Your task to perform on an android device: set the timer Image 0: 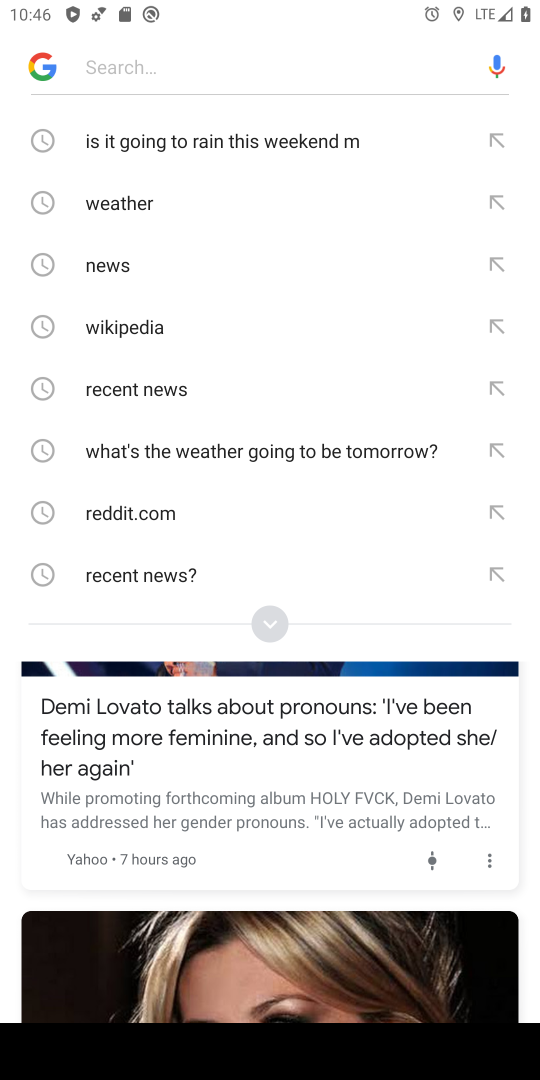
Step 0: click (252, 874)
Your task to perform on an android device: set the timer Image 1: 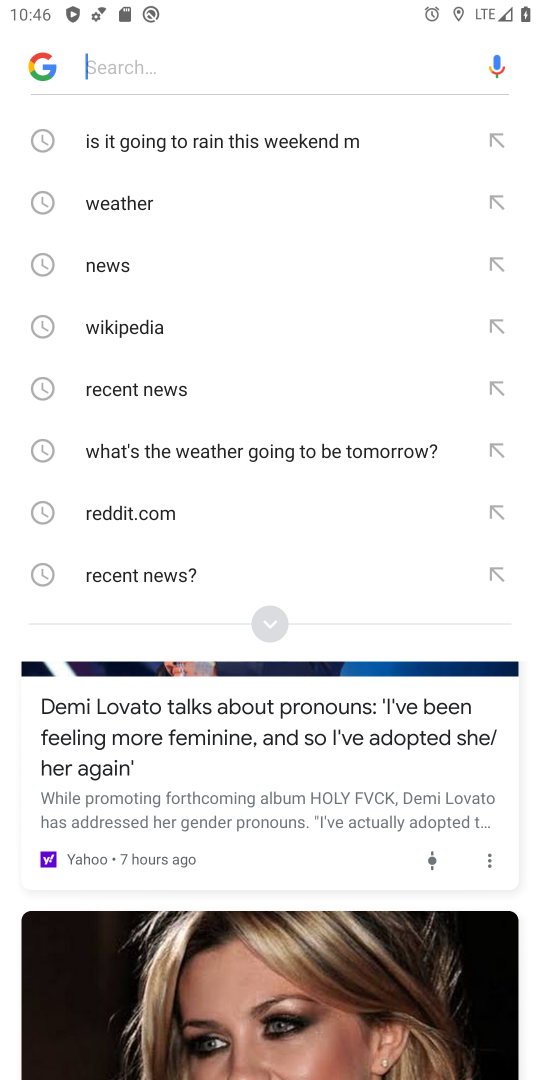
Step 1: press home button
Your task to perform on an android device: set the timer Image 2: 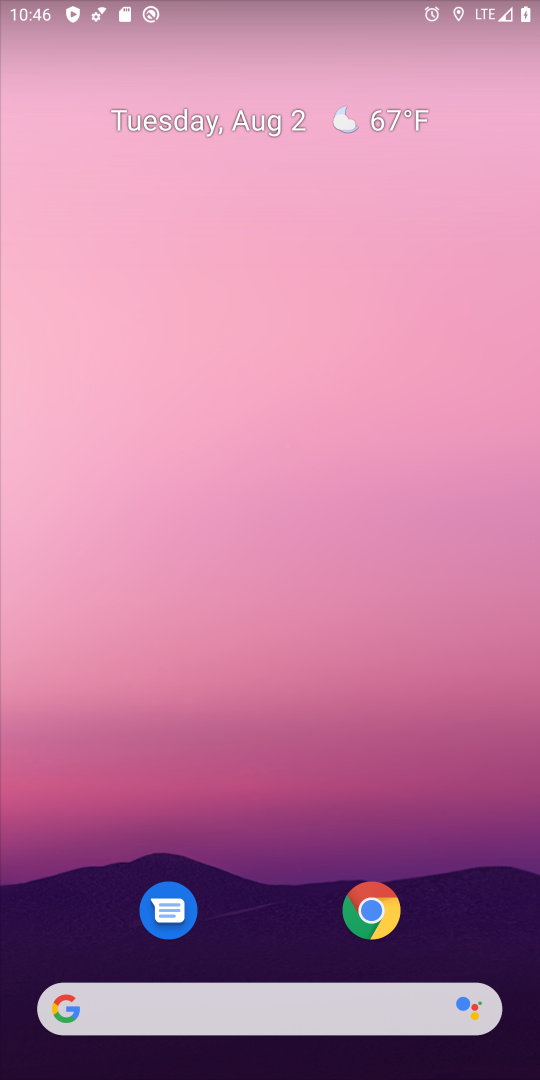
Step 2: drag from (249, 971) to (426, 228)
Your task to perform on an android device: set the timer Image 3: 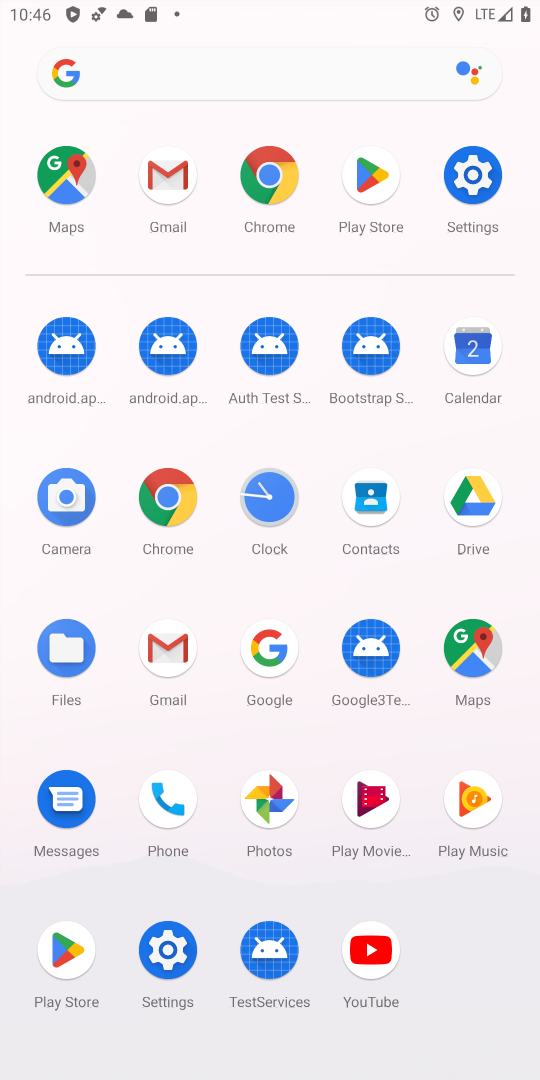
Step 3: click (278, 491)
Your task to perform on an android device: set the timer Image 4: 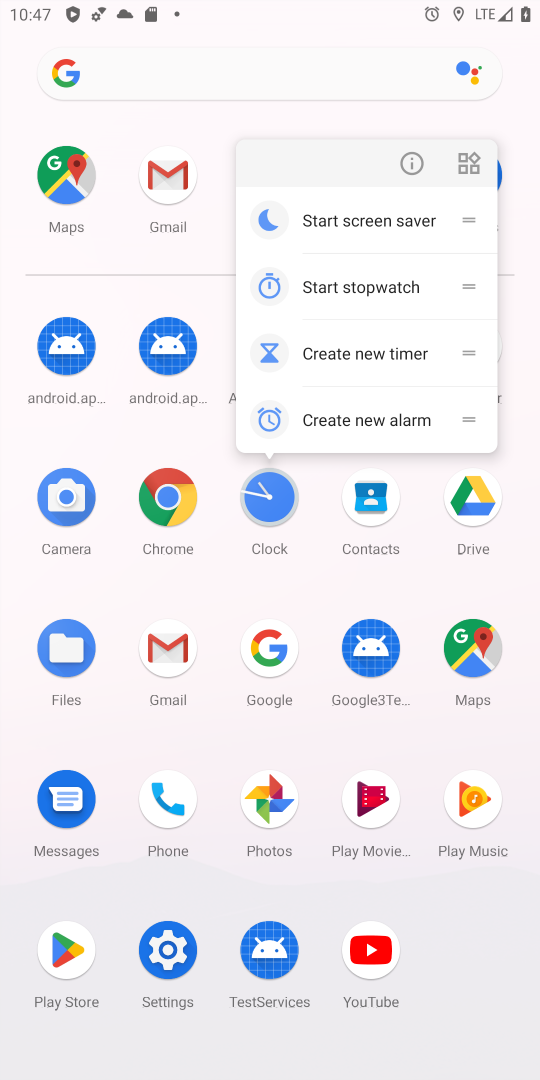
Step 4: click (291, 501)
Your task to perform on an android device: set the timer Image 5: 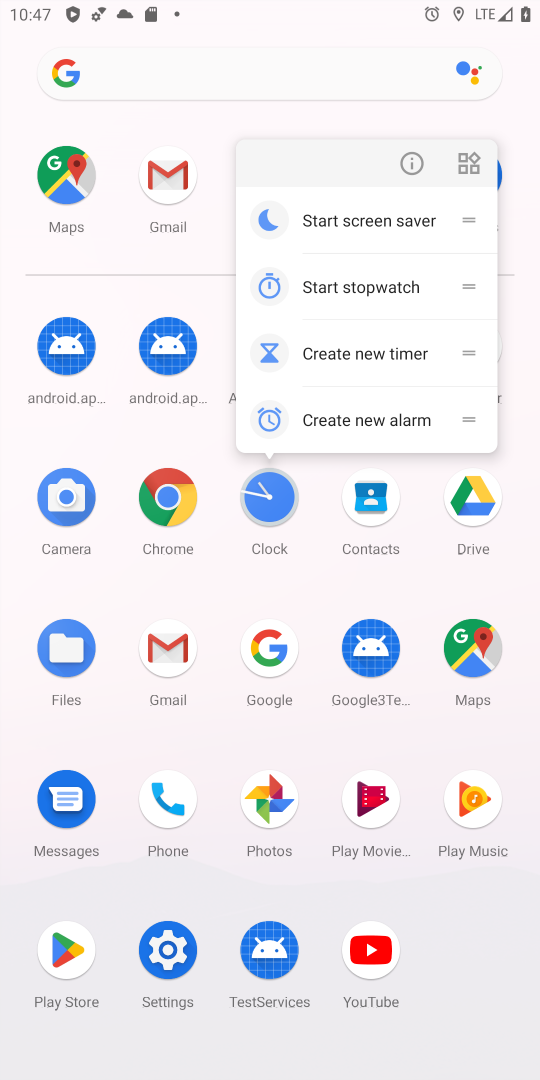
Step 5: click (256, 489)
Your task to perform on an android device: set the timer Image 6: 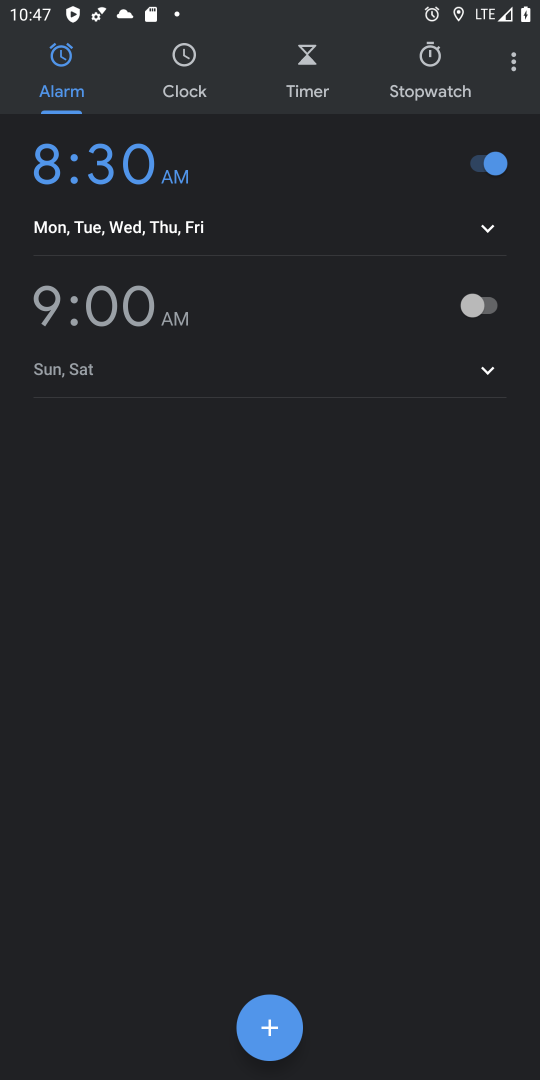
Step 6: click (320, 57)
Your task to perform on an android device: set the timer Image 7: 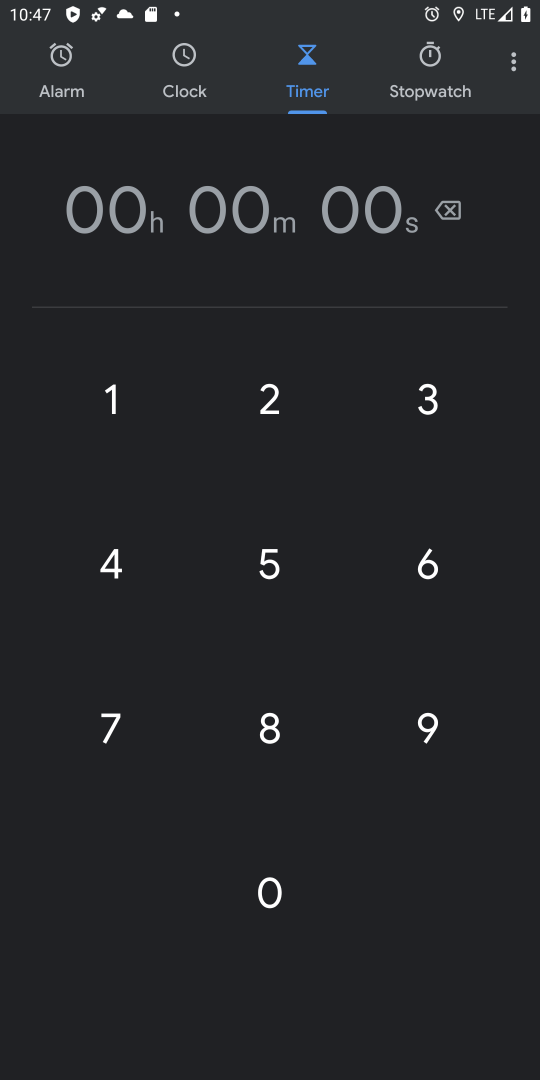
Step 7: click (202, 184)
Your task to perform on an android device: set the timer Image 8: 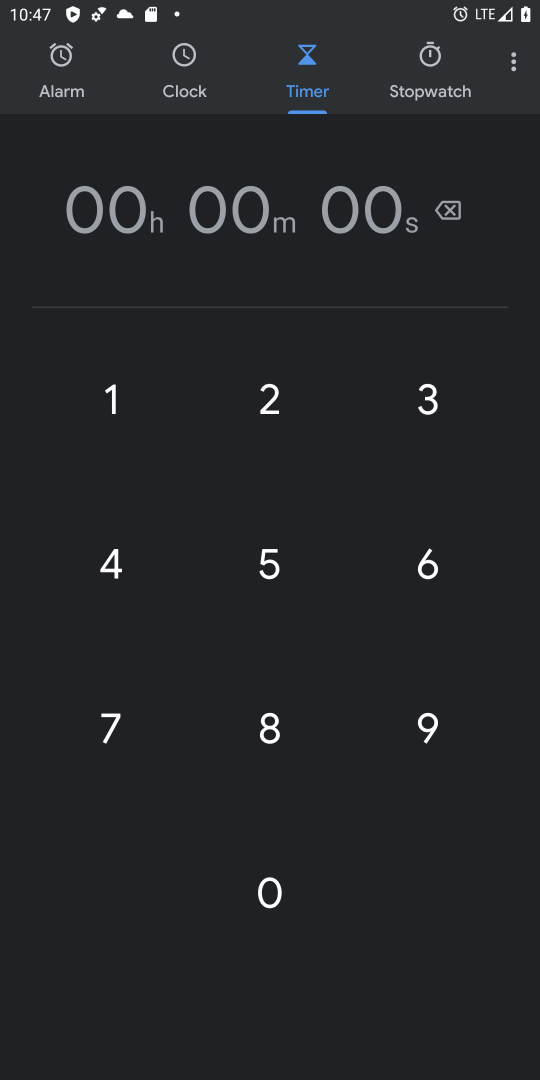
Step 8: type "878787787 "
Your task to perform on an android device: set the timer Image 9: 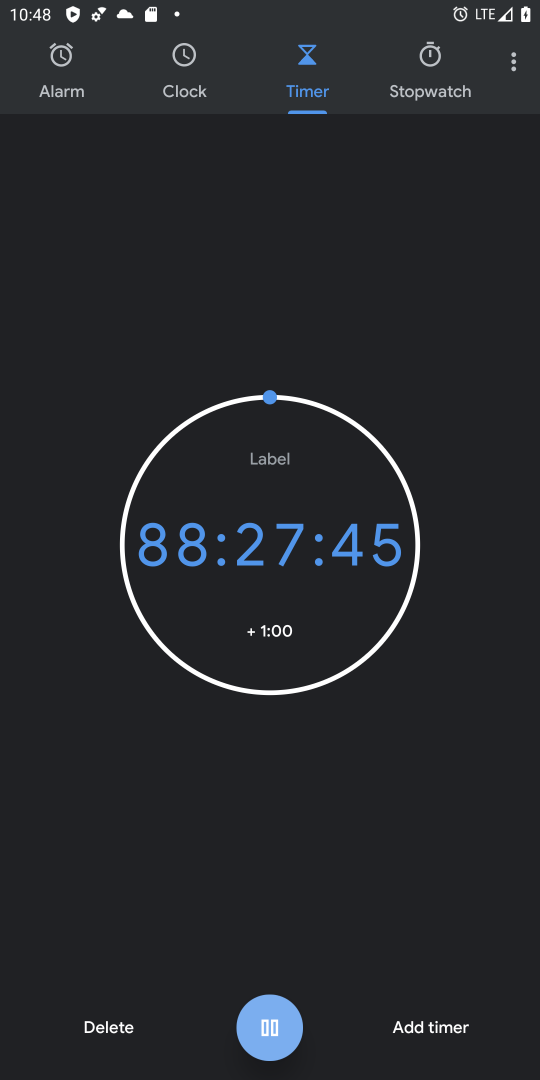
Step 9: task complete